Your task to perform on an android device: turn on the 24-hour format for clock Image 0: 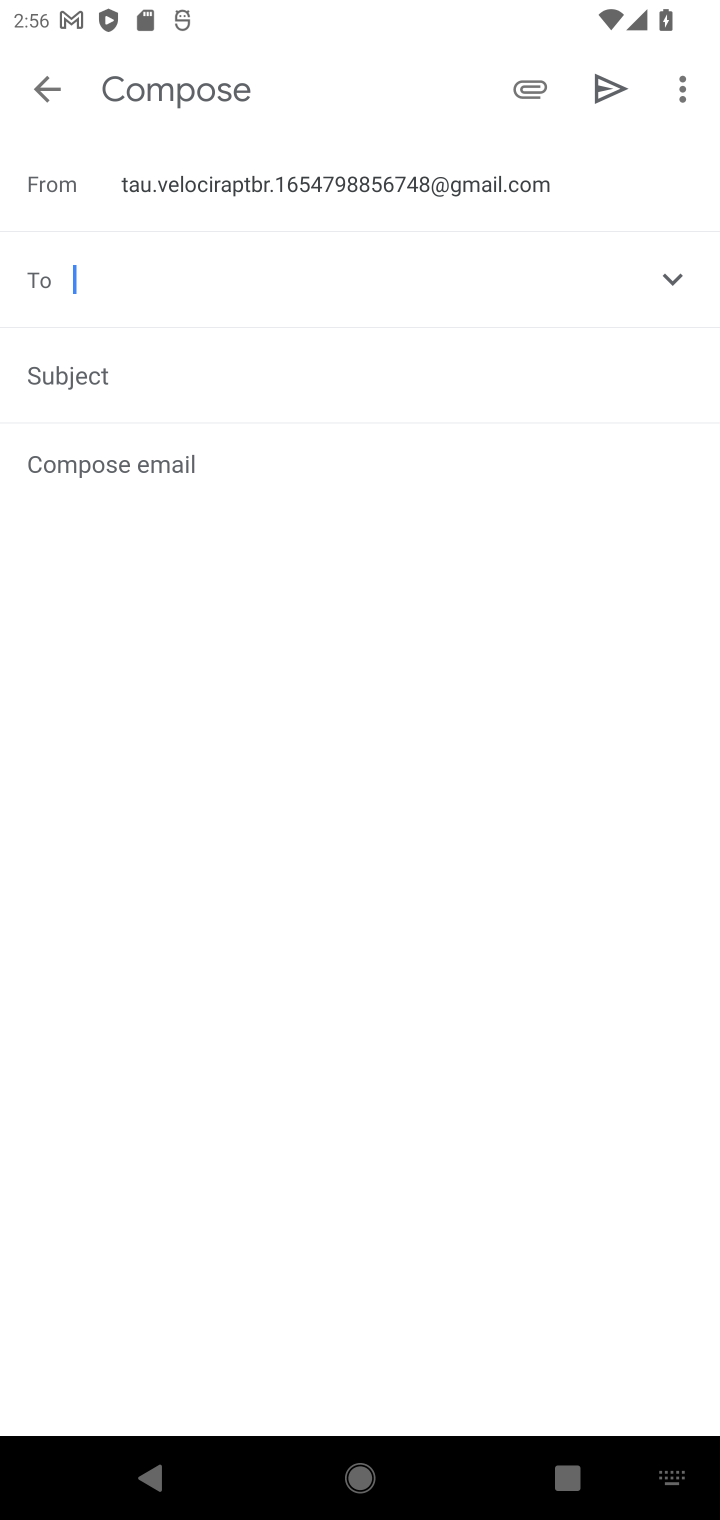
Step 0: press home button
Your task to perform on an android device: turn on the 24-hour format for clock Image 1: 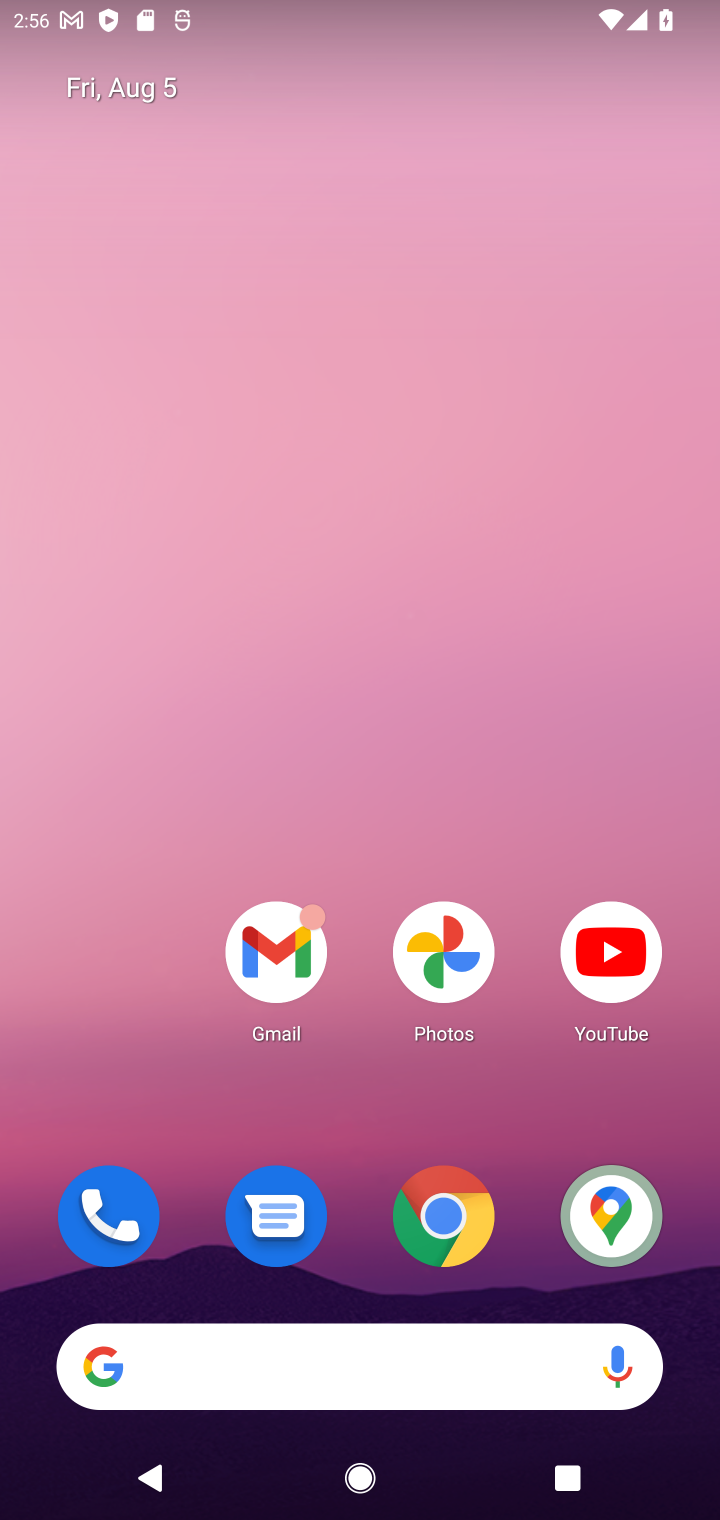
Step 1: drag from (467, 1454) to (450, 63)
Your task to perform on an android device: turn on the 24-hour format for clock Image 2: 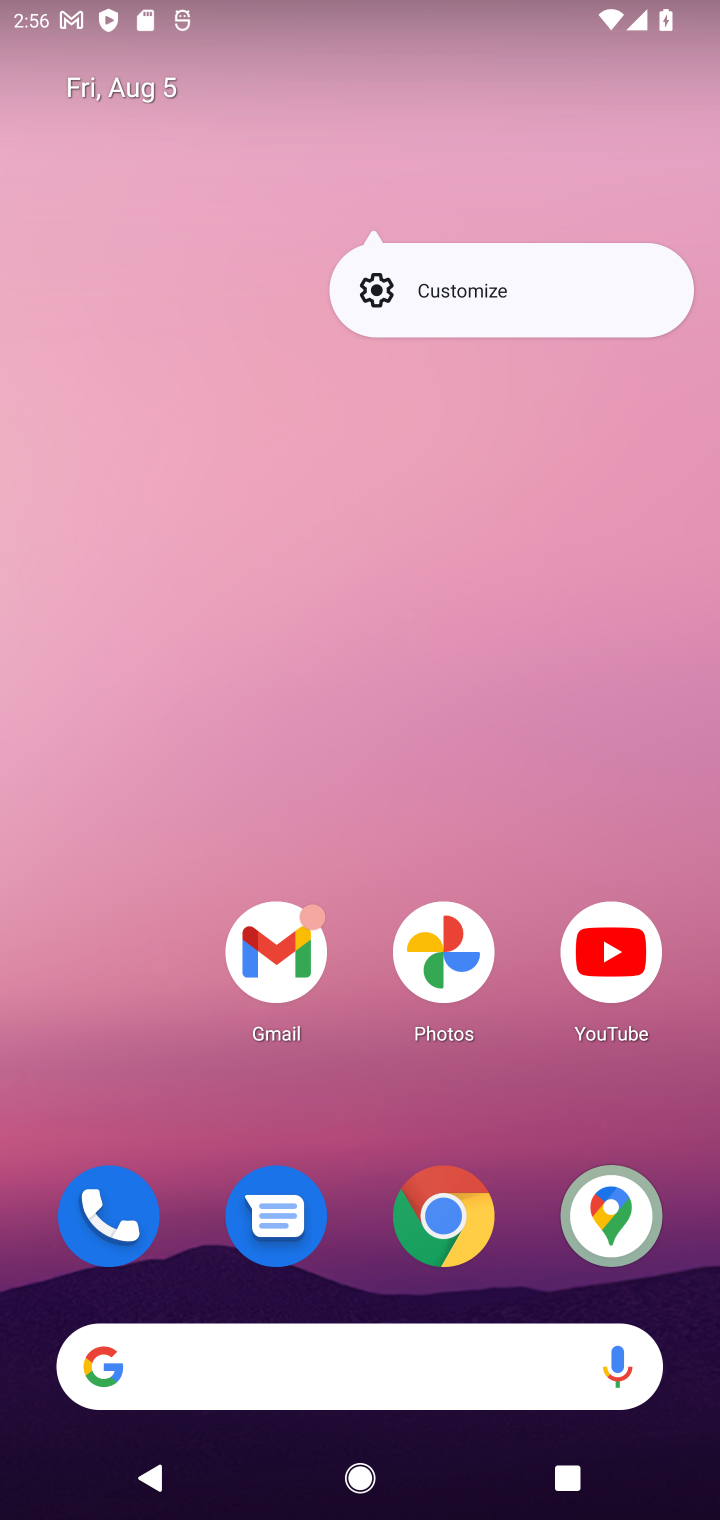
Step 2: drag from (238, 1462) to (335, 354)
Your task to perform on an android device: turn on the 24-hour format for clock Image 3: 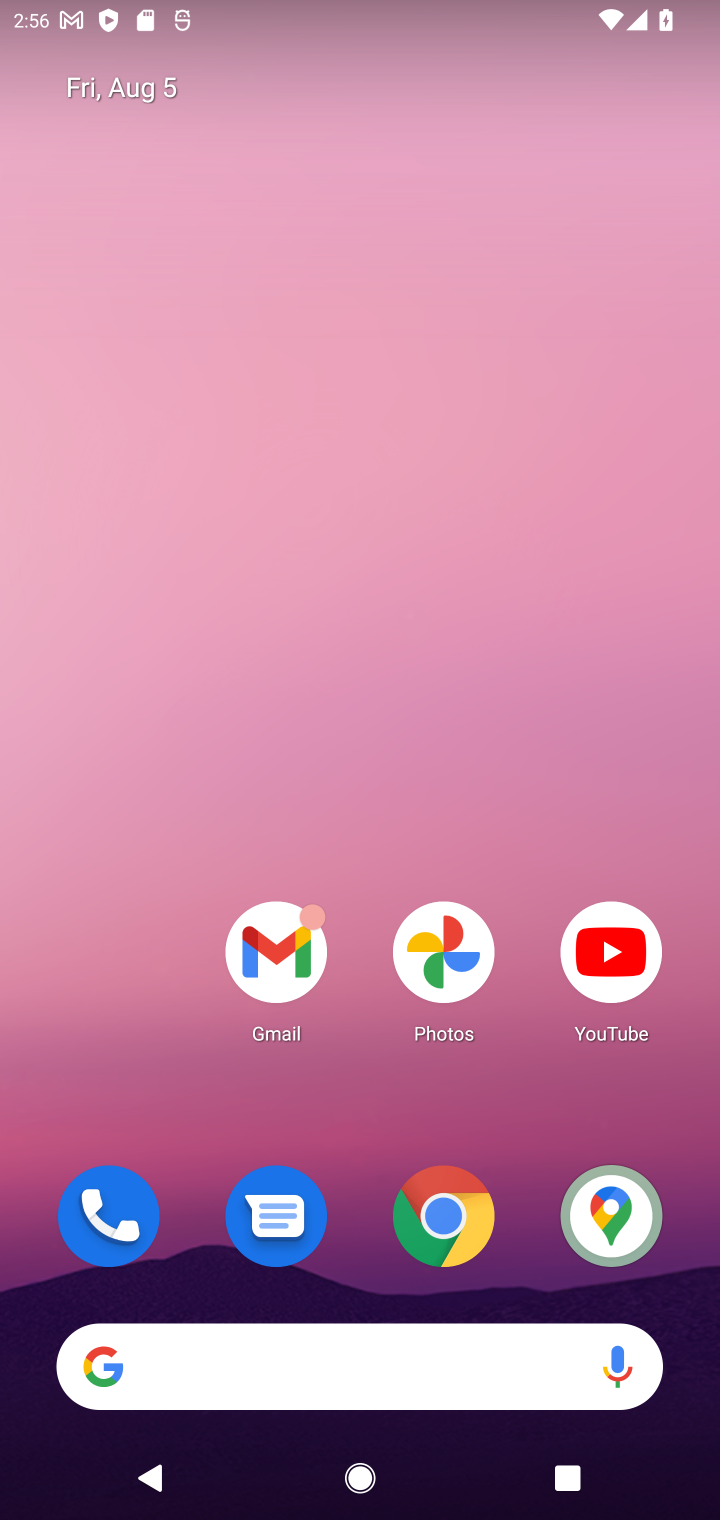
Step 3: drag from (480, 1460) to (516, 197)
Your task to perform on an android device: turn on the 24-hour format for clock Image 4: 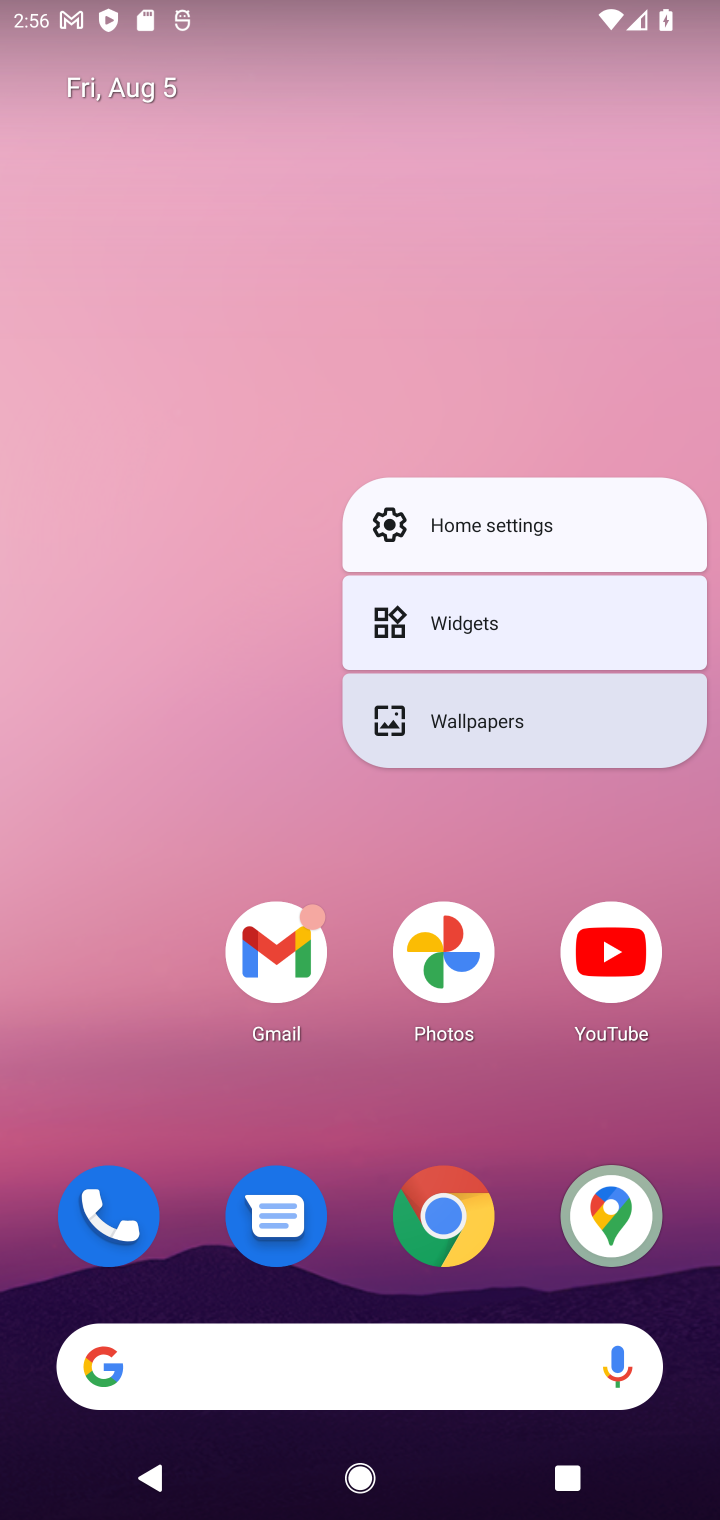
Step 4: drag from (234, 1438) to (261, 7)
Your task to perform on an android device: turn on the 24-hour format for clock Image 5: 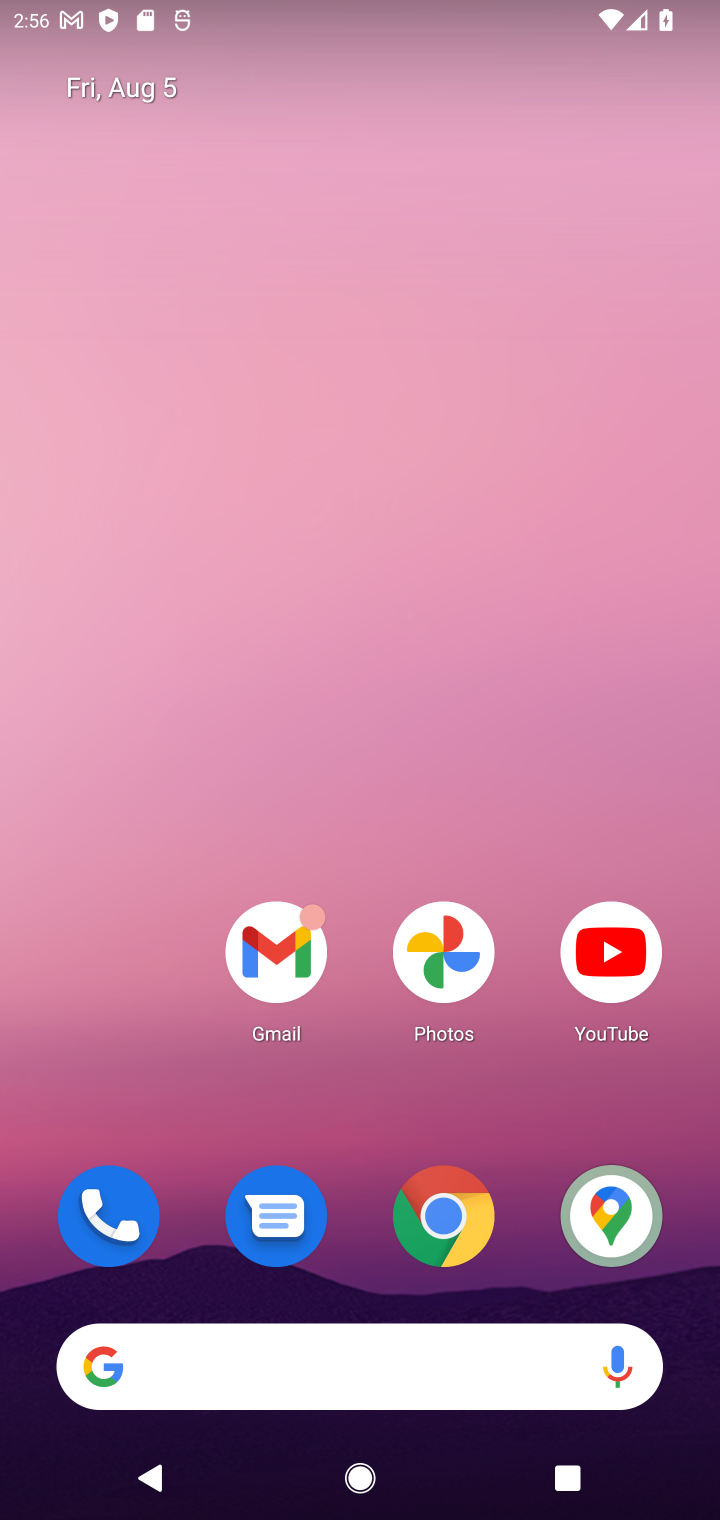
Step 5: drag from (326, 1395) to (562, 0)
Your task to perform on an android device: turn on the 24-hour format for clock Image 6: 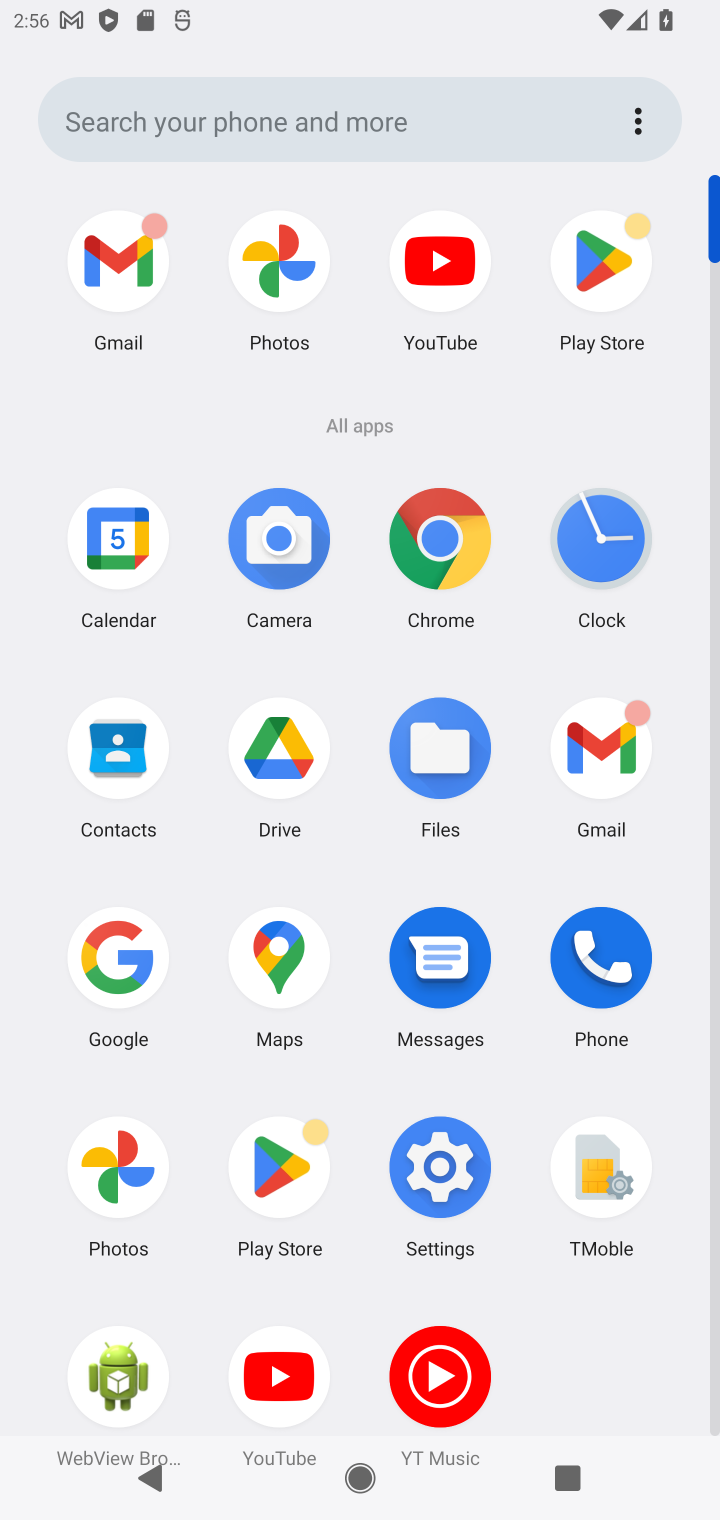
Step 6: click (607, 551)
Your task to perform on an android device: turn on the 24-hour format for clock Image 7: 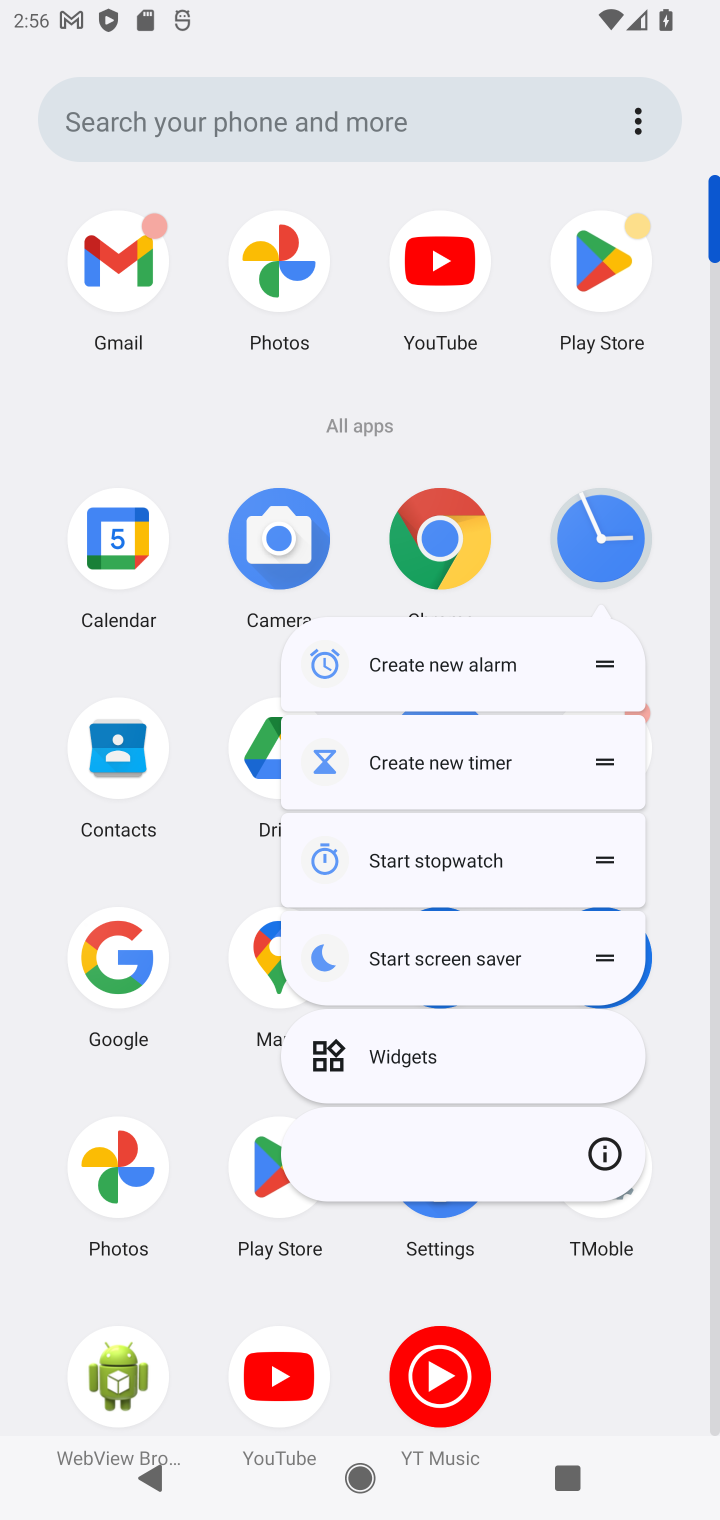
Step 7: click (607, 551)
Your task to perform on an android device: turn on the 24-hour format for clock Image 8: 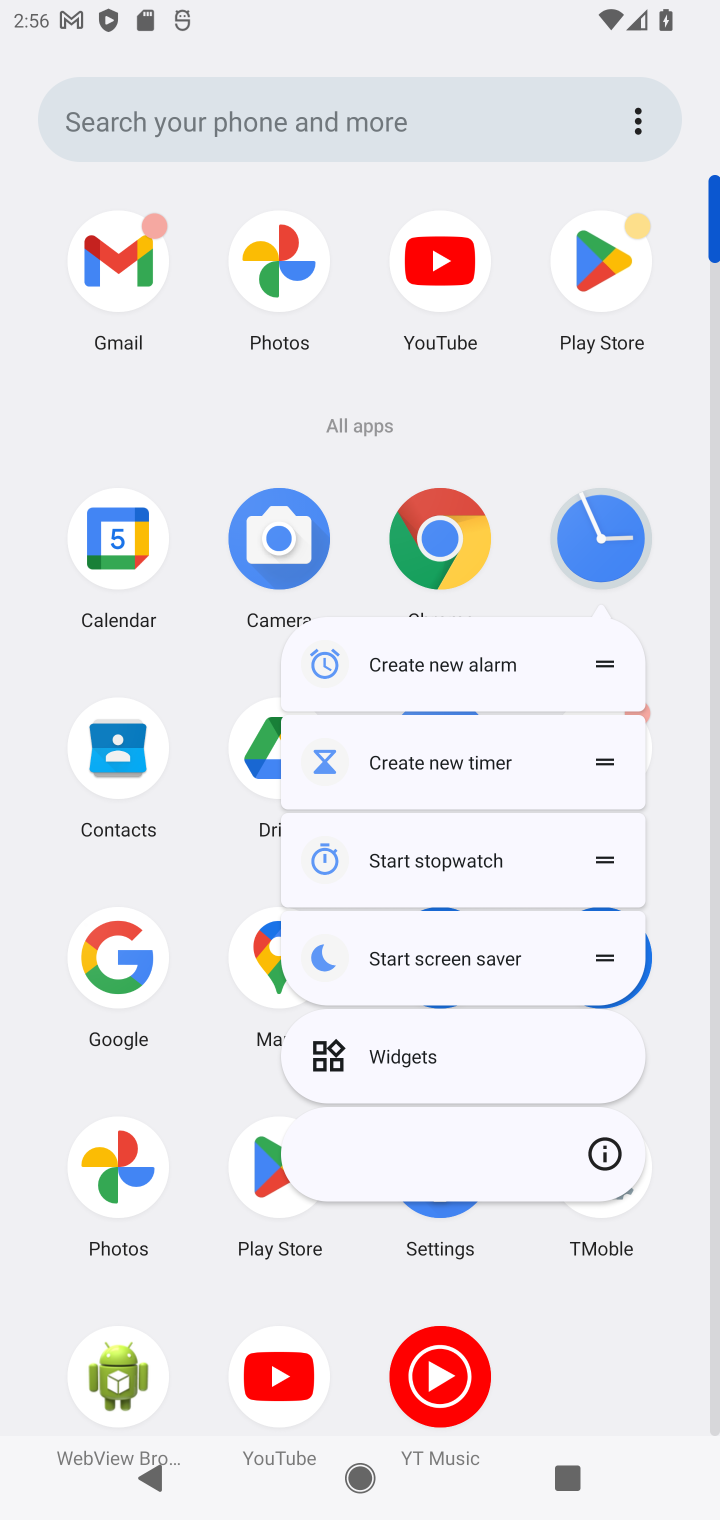
Step 8: click (607, 551)
Your task to perform on an android device: turn on the 24-hour format for clock Image 9: 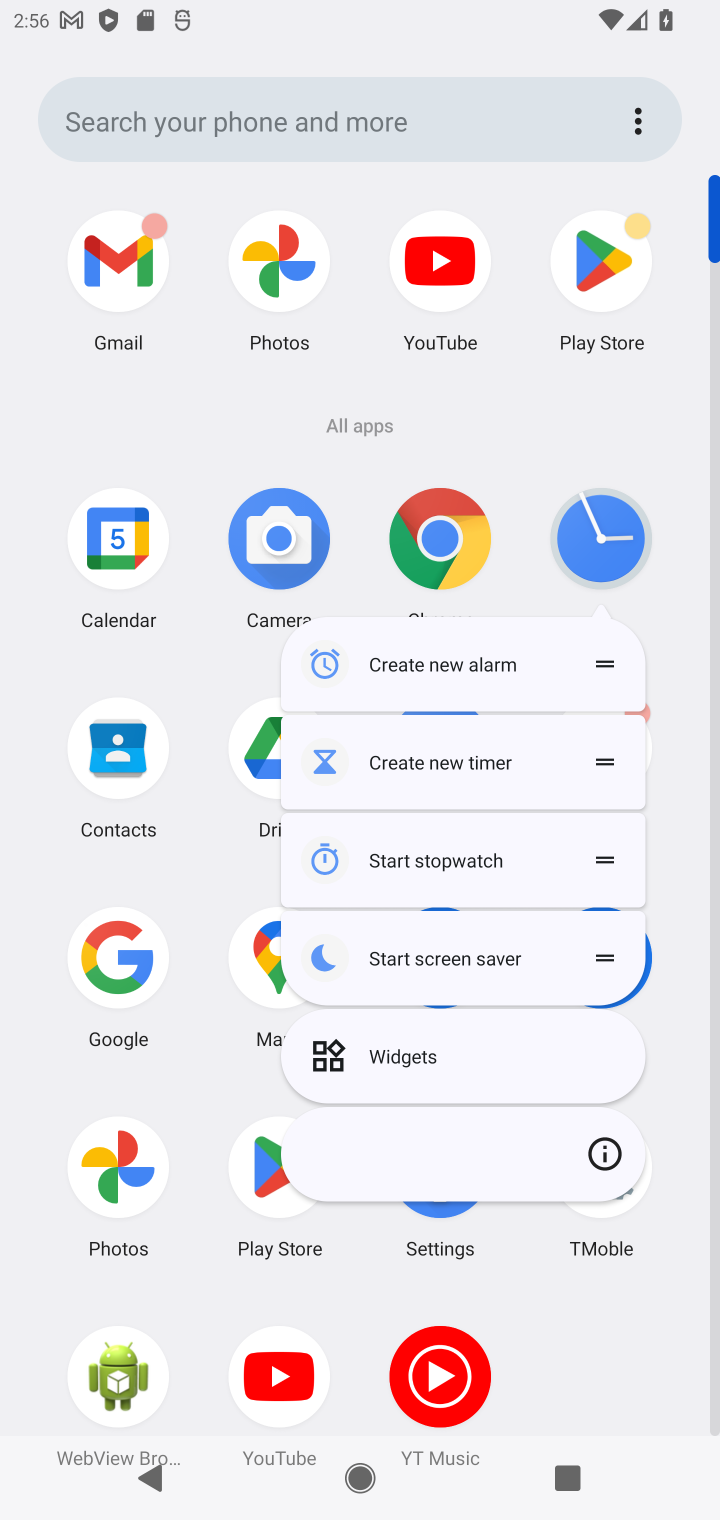
Step 9: click (607, 551)
Your task to perform on an android device: turn on the 24-hour format for clock Image 10: 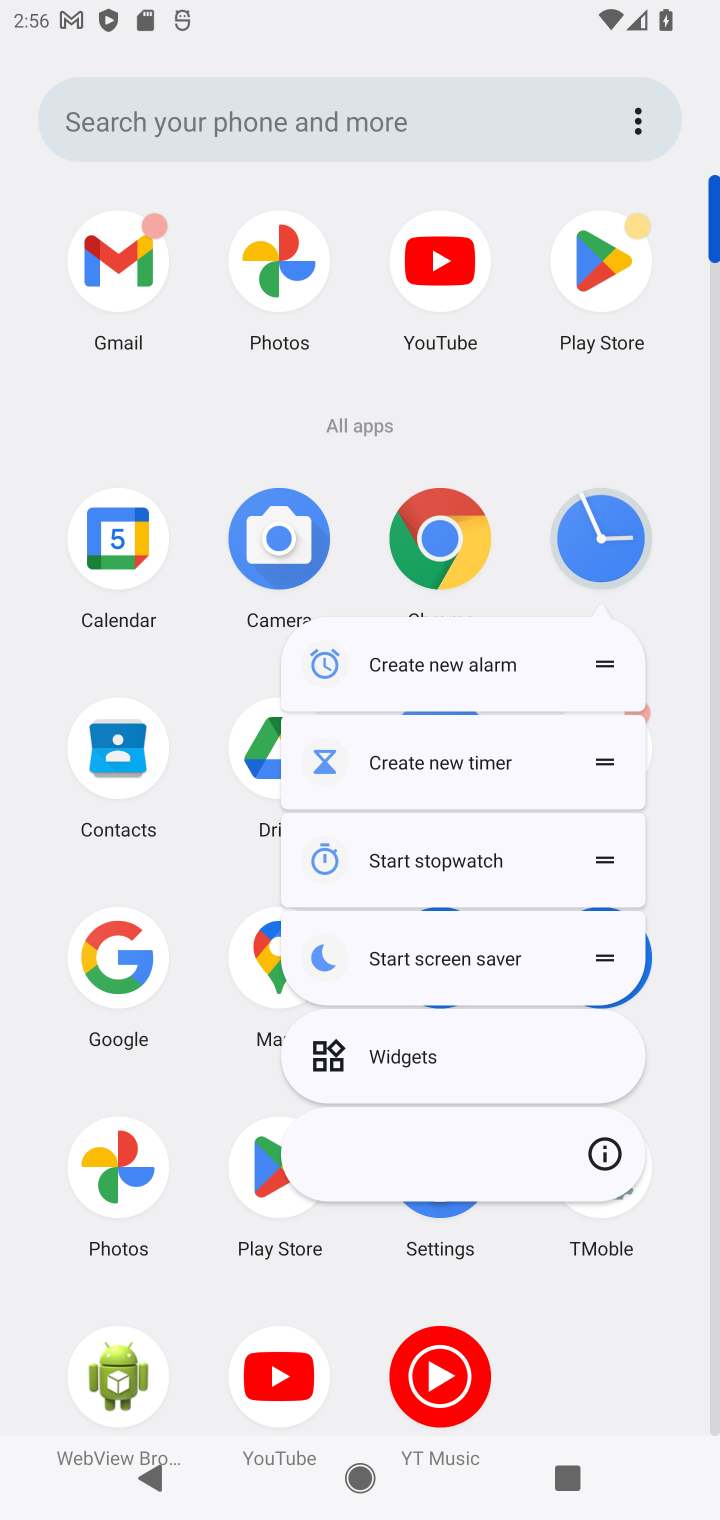
Step 10: click (618, 497)
Your task to perform on an android device: turn on the 24-hour format for clock Image 11: 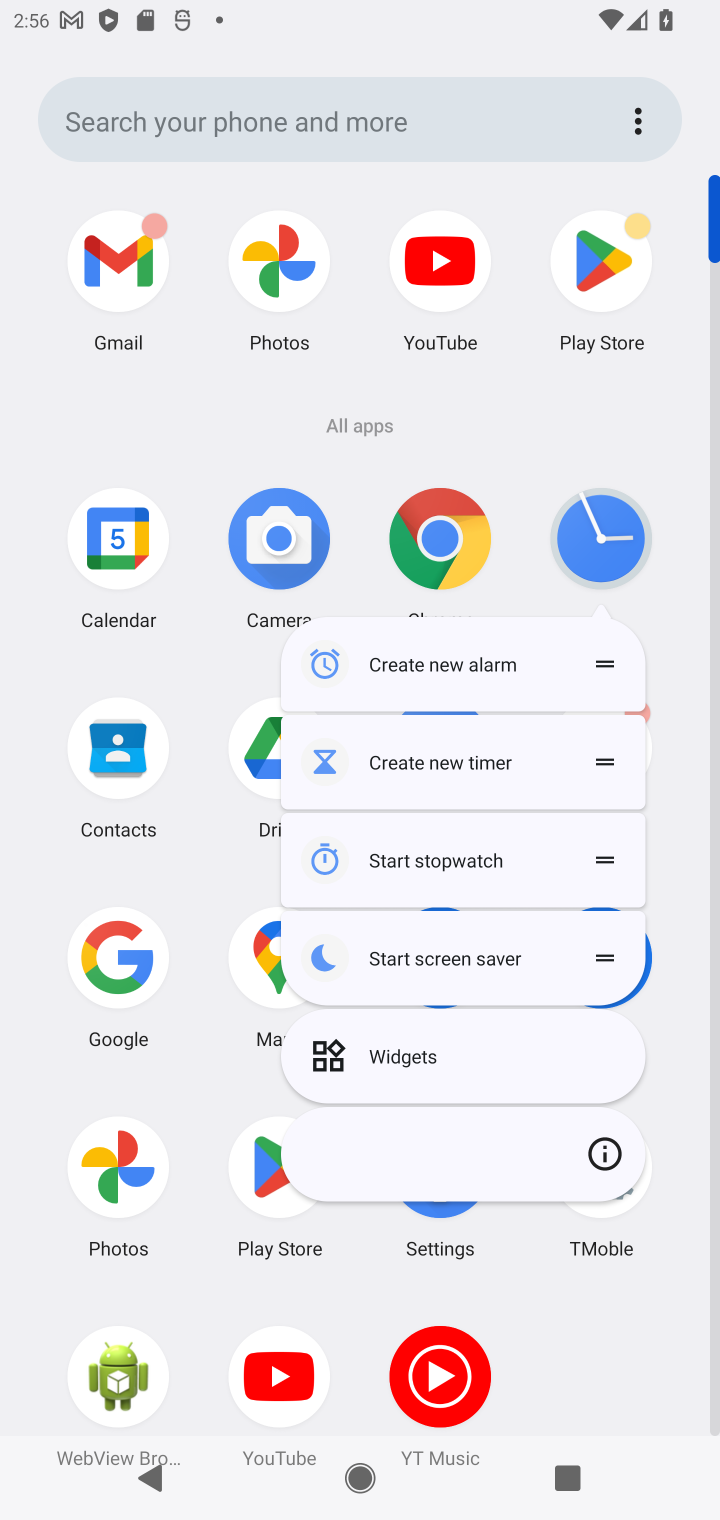
Step 11: click (618, 504)
Your task to perform on an android device: turn on the 24-hour format for clock Image 12: 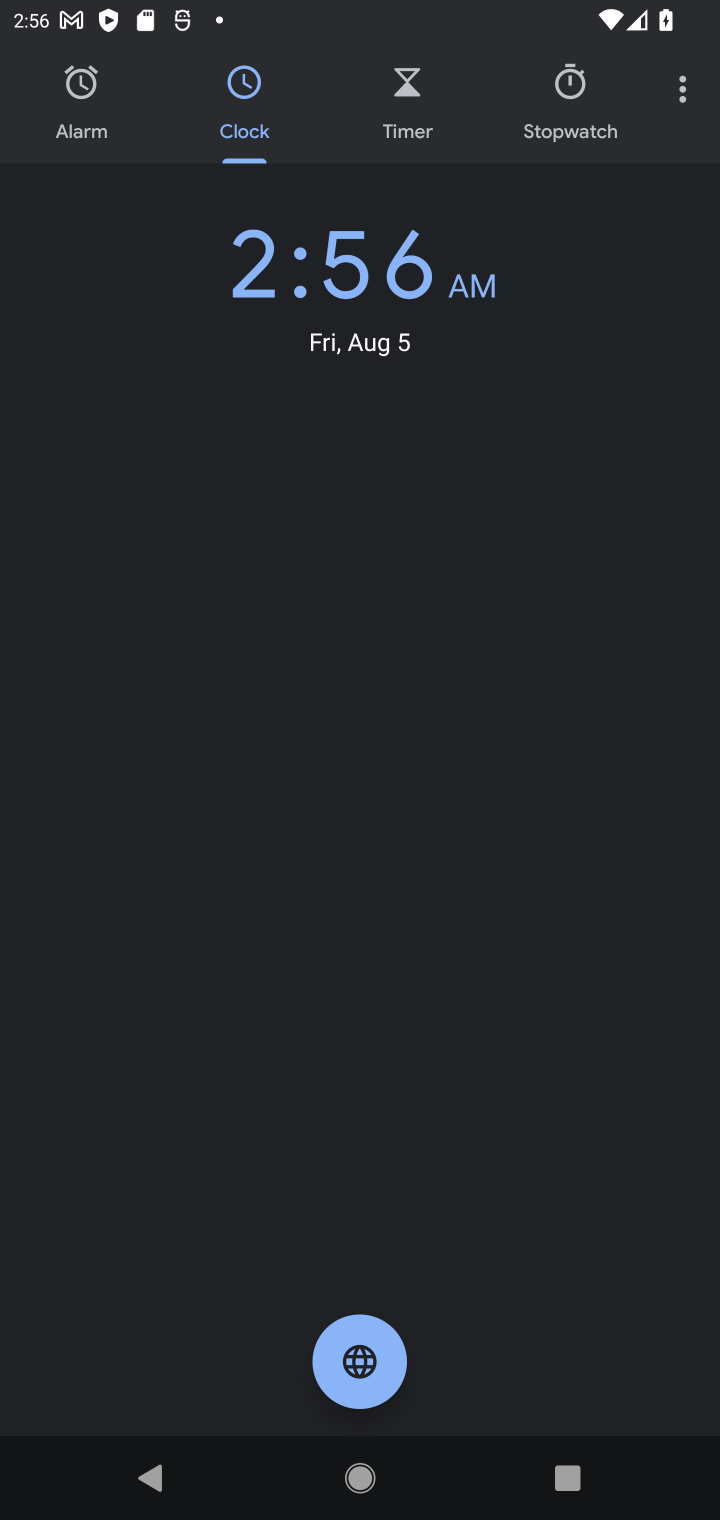
Step 12: click (683, 107)
Your task to perform on an android device: turn on the 24-hour format for clock Image 13: 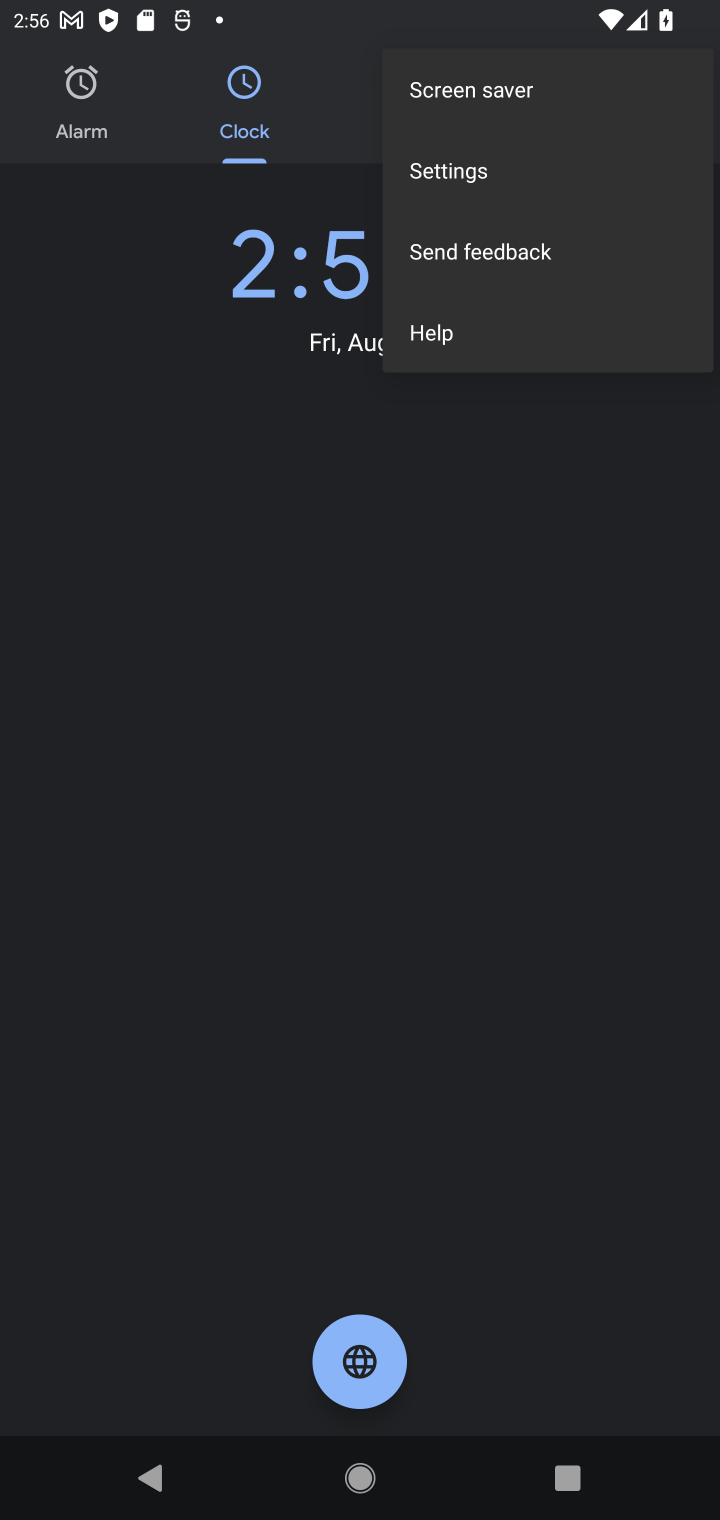
Step 13: click (526, 191)
Your task to perform on an android device: turn on the 24-hour format for clock Image 14: 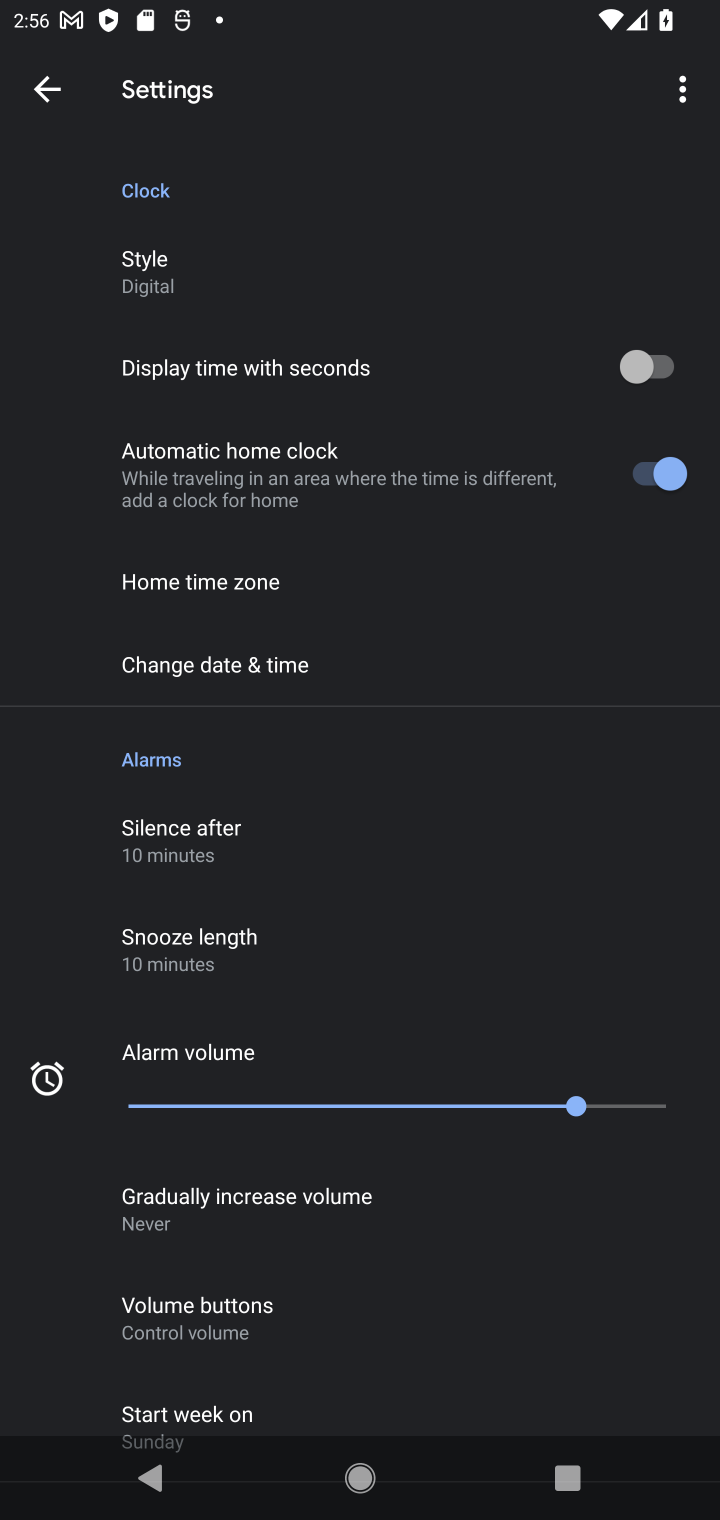
Step 14: click (269, 653)
Your task to perform on an android device: turn on the 24-hour format for clock Image 15: 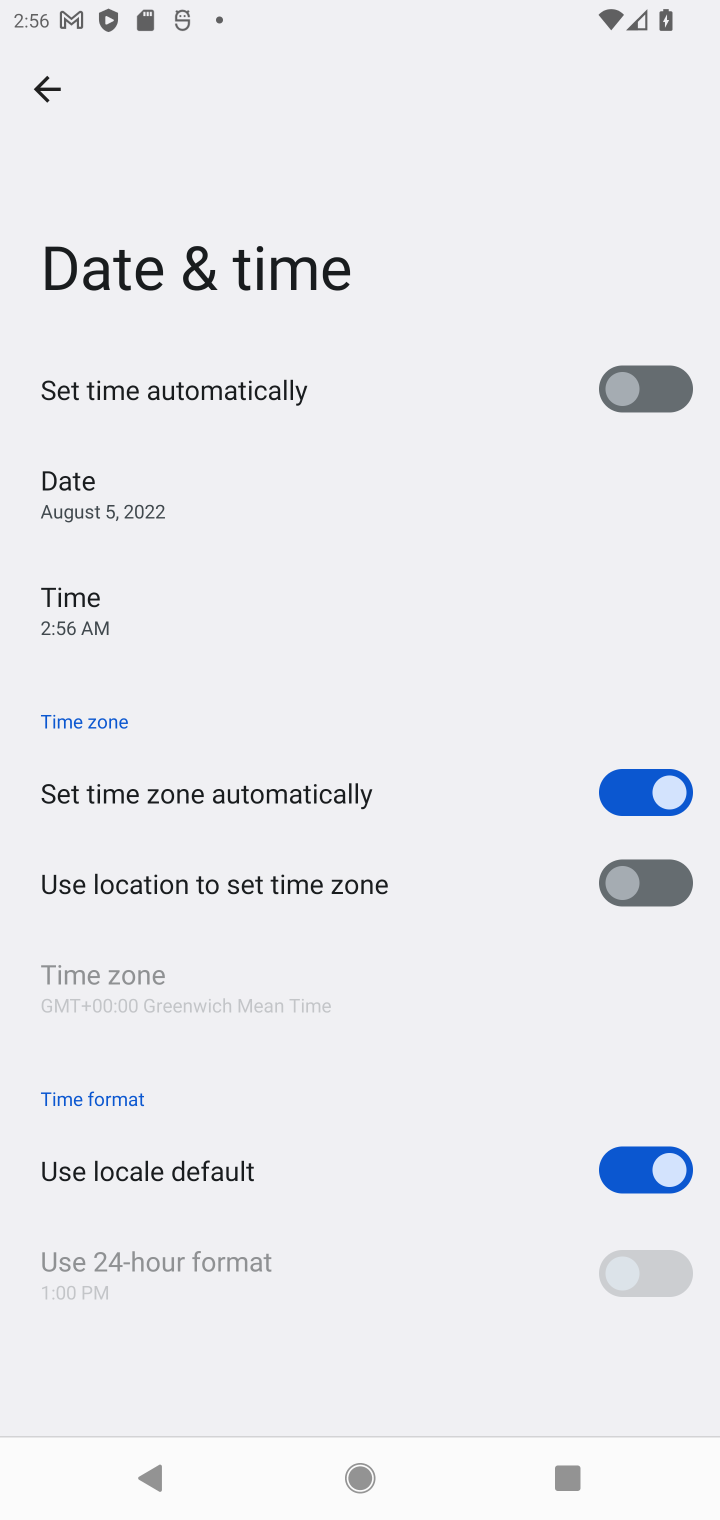
Step 15: click (644, 1188)
Your task to perform on an android device: turn on the 24-hour format for clock Image 16: 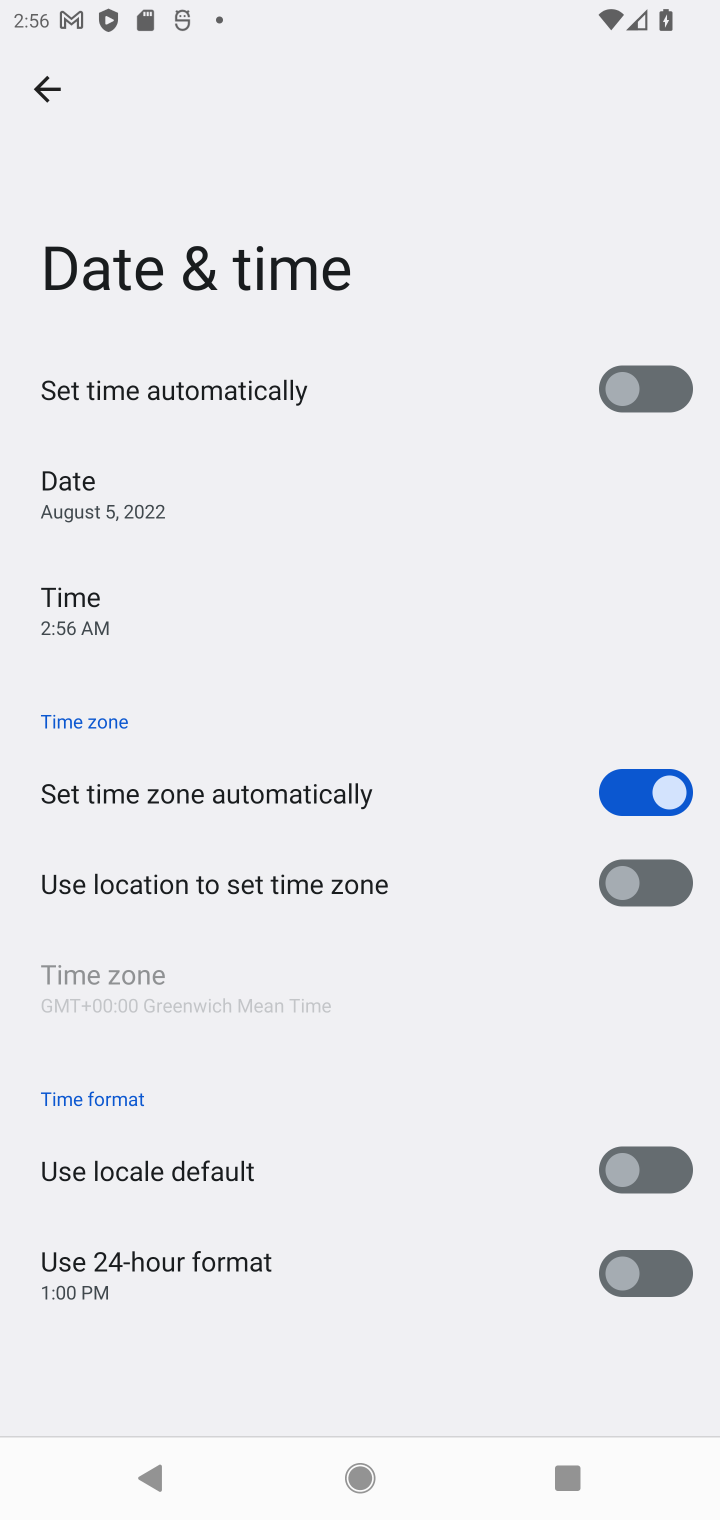
Step 16: click (673, 1290)
Your task to perform on an android device: turn on the 24-hour format for clock Image 17: 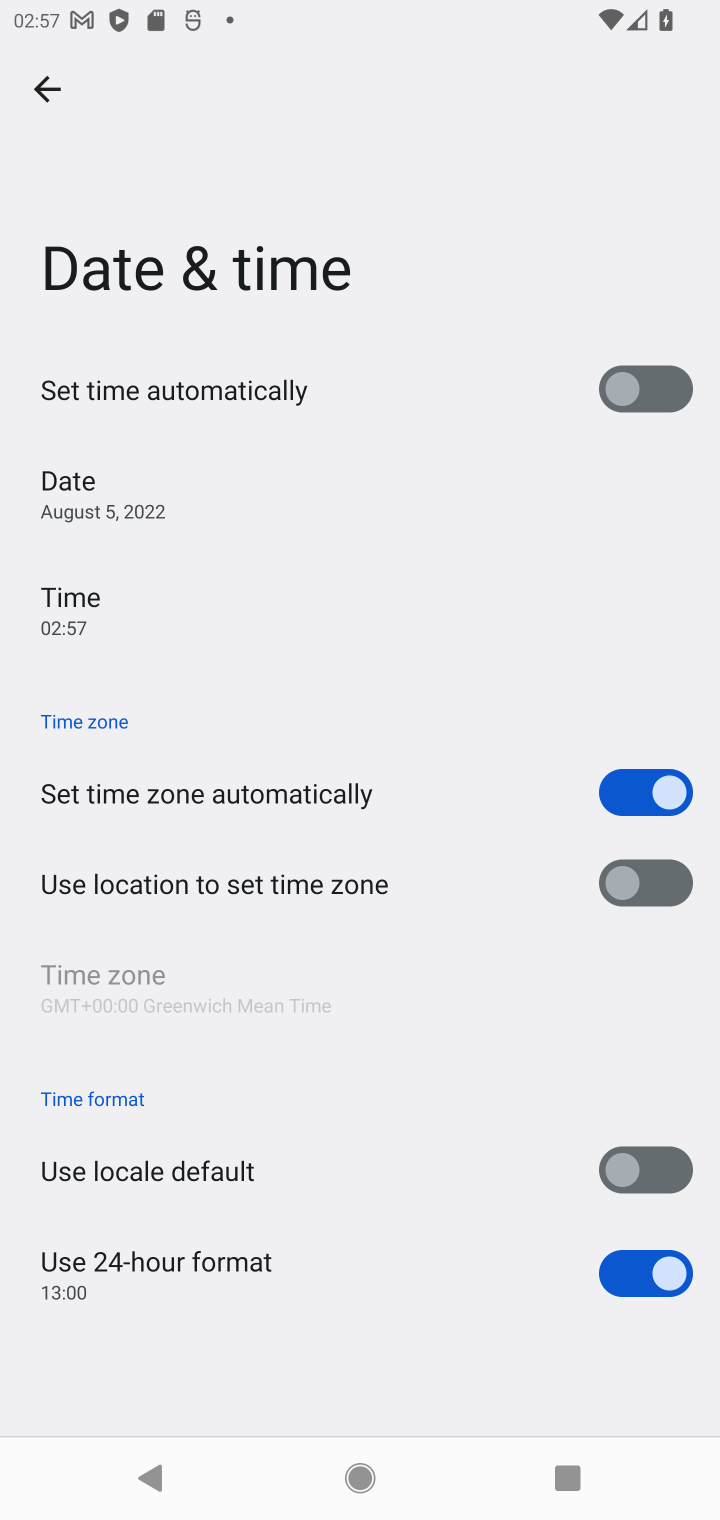
Step 17: task complete